Your task to perform on an android device: allow notifications from all sites in the chrome app Image 0: 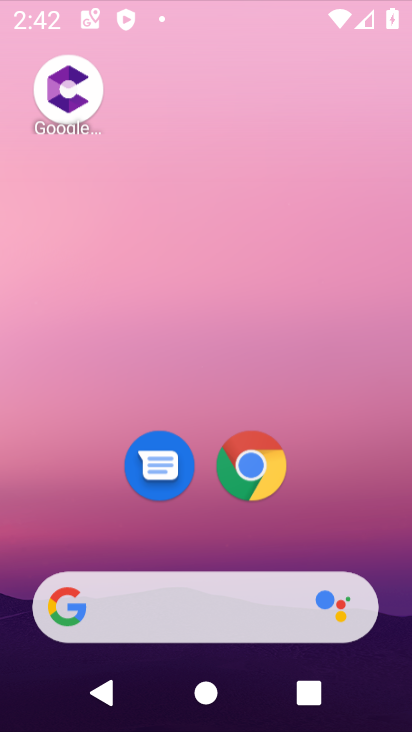
Step 0: click (215, 135)
Your task to perform on an android device: allow notifications from all sites in the chrome app Image 1: 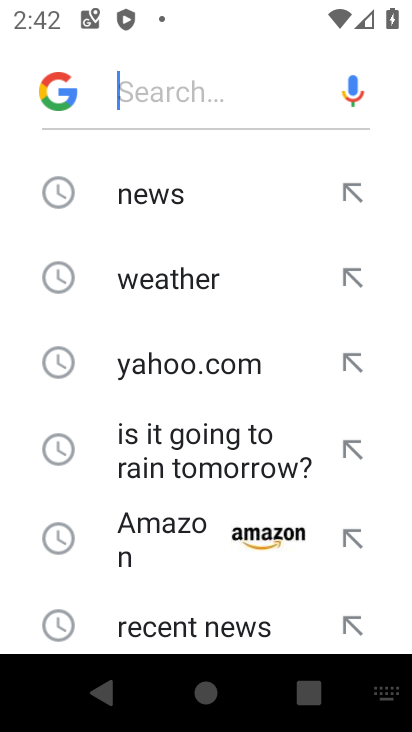
Step 1: press back button
Your task to perform on an android device: allow notifications from all sites in the chrome app Image 2: 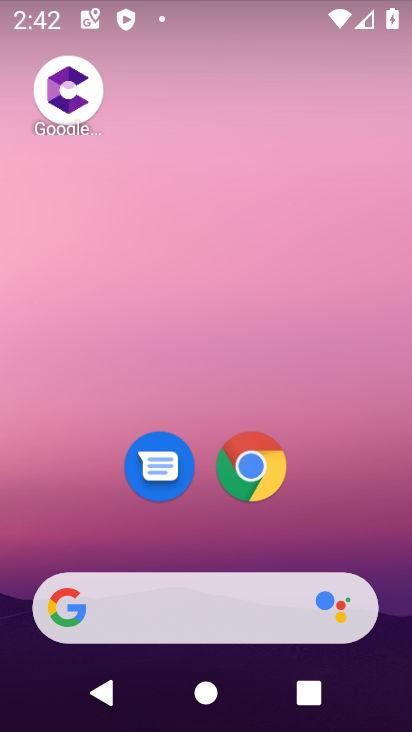
Step 2: drag from (265, 628) to (178, 39)
Your task to perform on an android device: allow notifications from all sites in the chrome app Image 3: 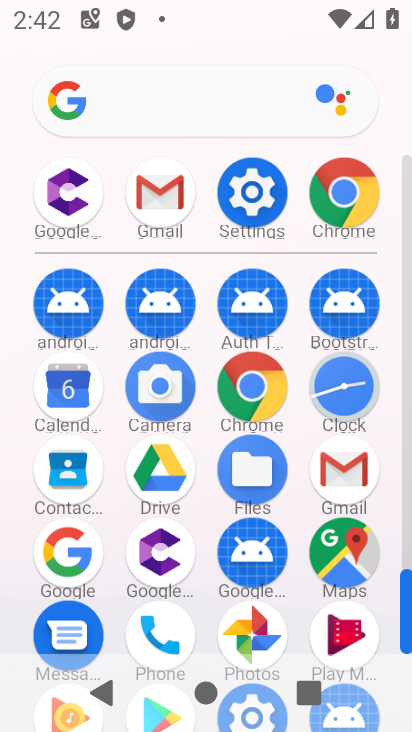
Step 3: click (329, 216)
Your task to perform on an android device: allow notifications from all sites in the chrome app Image 4: 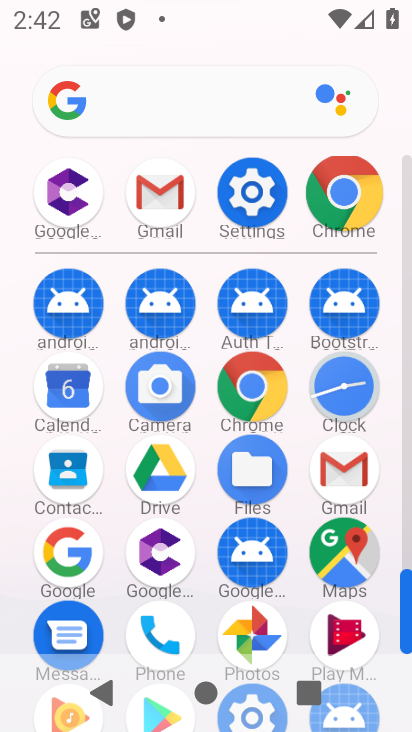
Step 4: click (329, 216)
Your task to perform on an android device: allow notifications from all sites in the chrome app Image 5: 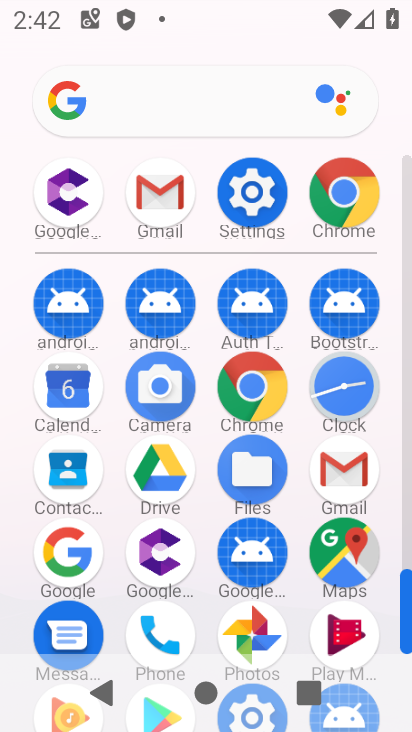
Step 5: click (335, 208)
Your task to perform on an android device: allow notifications from all sites in the chrome app Image 6: 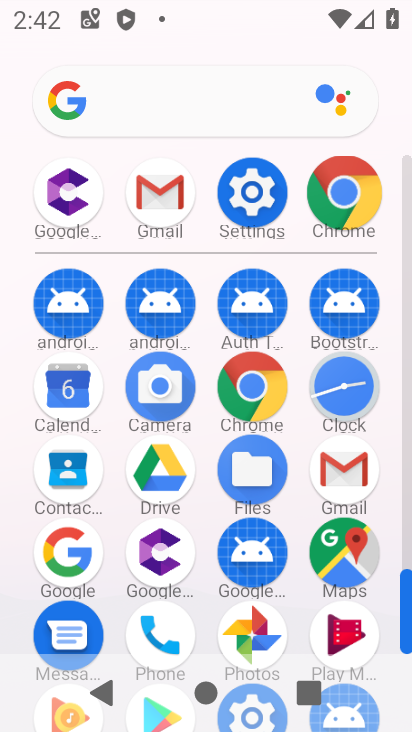
Step 6: click (337, 207)
Your task to perform on an android device: allow notifications from all sites in the chrome app Image 7: 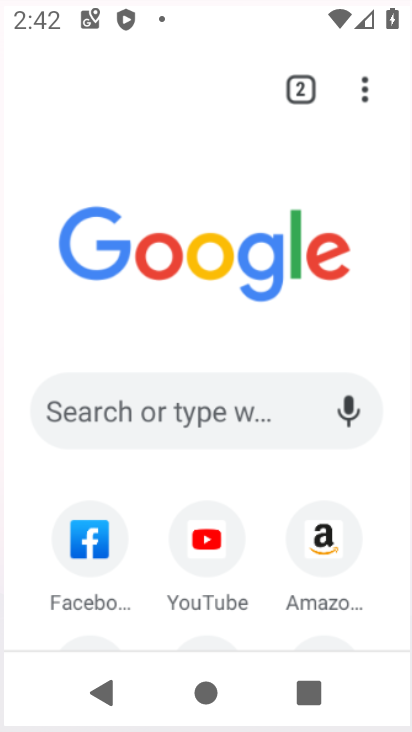
Step 7: click (343, 205)
Your task to perform on an android device: allow notifications from all sites in the chrome app Image 8: 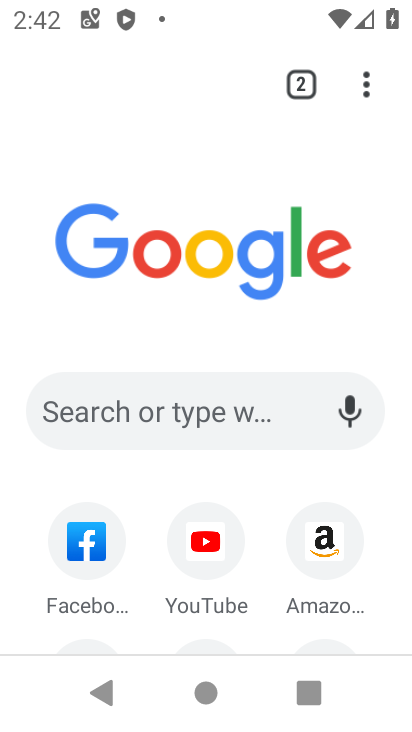
Step 8: drag from (370, 82) to (36, 514)
Your task to perform on an android device: allow notifications from all sites in the chrome app Image 9: 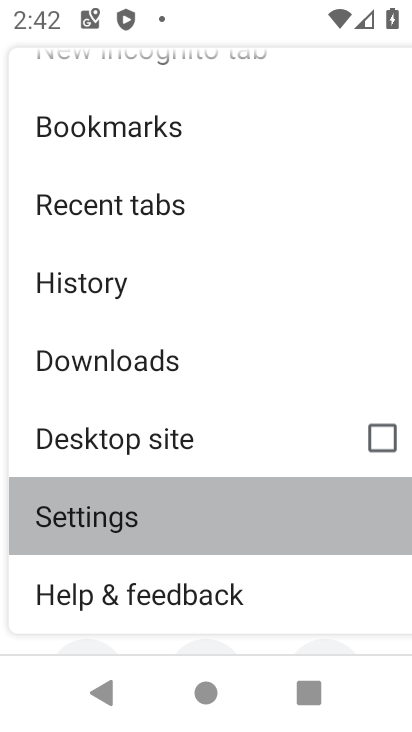
Step 9: click (47, 507)
Your task to perform on an android device: allow notifications from all sites in the chrome app Image 10: 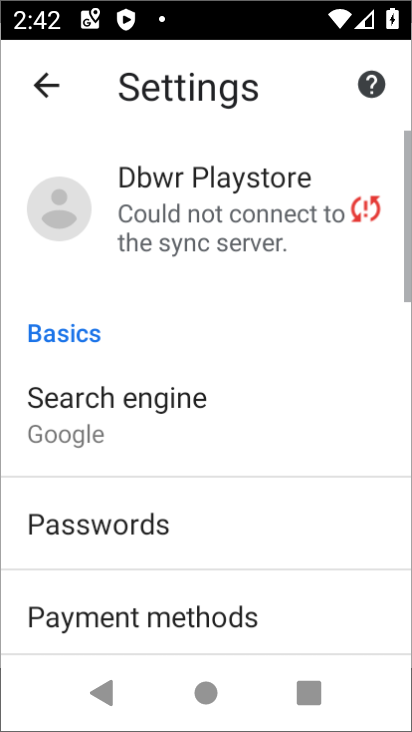
Step 10: click (56, 507)
Your task to perform on an android device: allow notifications from all sites in the chrome app Image 11: 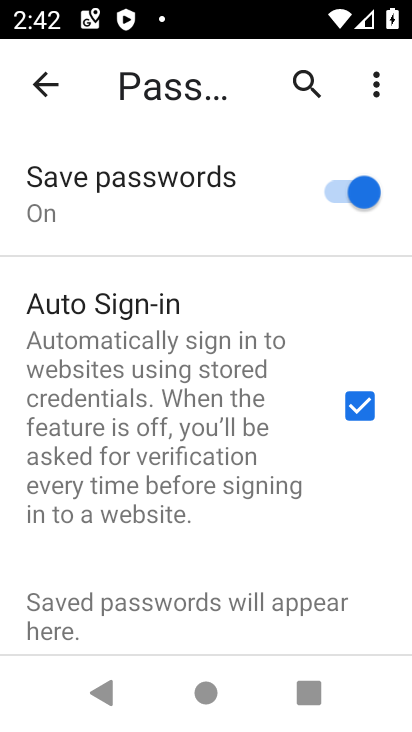
Step 11: click (34, 74)
Your task to perform on an android device: allow notifications from all sites in the chrome app Image 12: 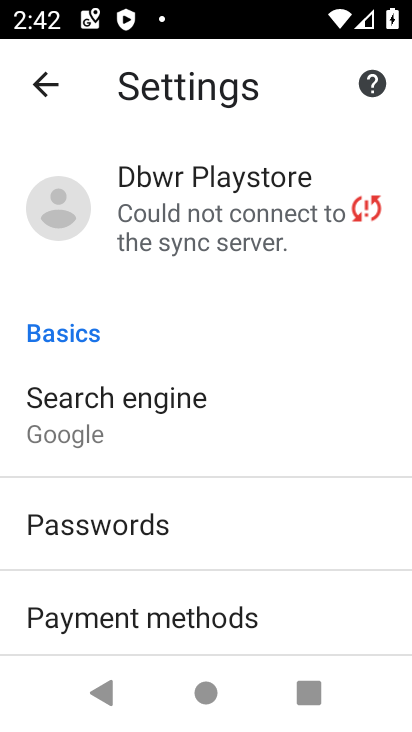
Step 12: drag from (140, 572) to (94, 311)
Your task to perform on an android device: allow notifications from all sites in the chrome app Image 13: 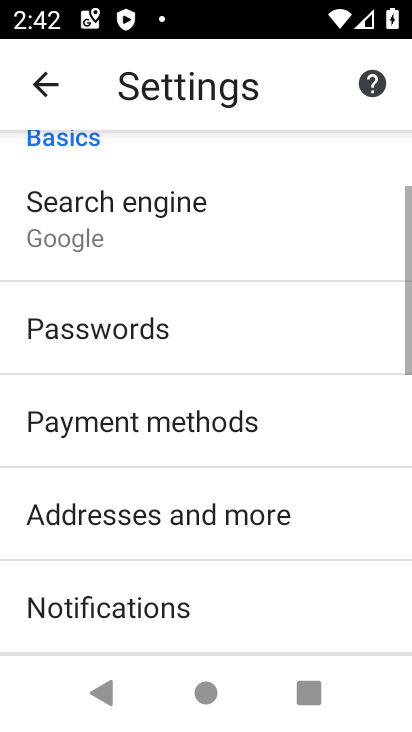
Step 13: drag from (142, 571) to (113, 291)
Your task to perform on an android device: allow notifications from all sites in the chrome app Image 14: 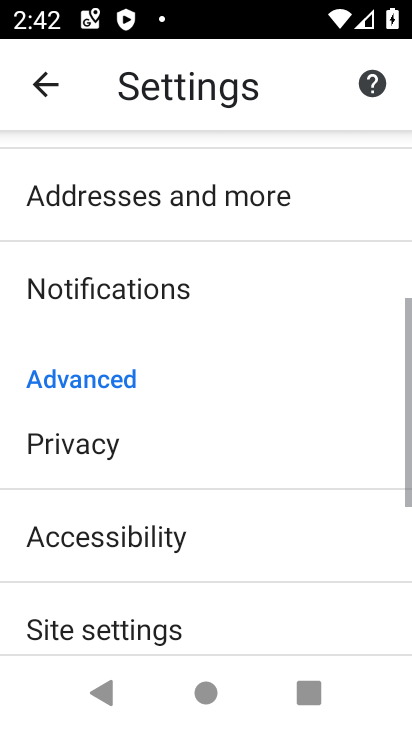
Step 14: drag from (148, 352) to (138, 295)
Your task to perform on an android device: allow notifications from all sites in the chrome app Image 15: 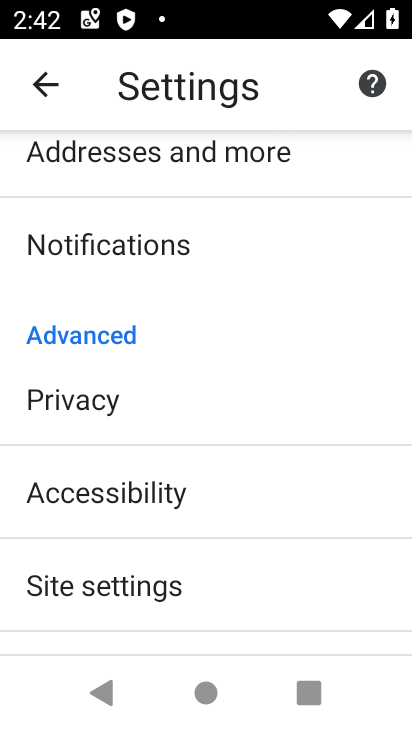
Step 15: click (83, 571)
Your task to perform on an android device: allow notifications from all sites in the chrome app Image 16: 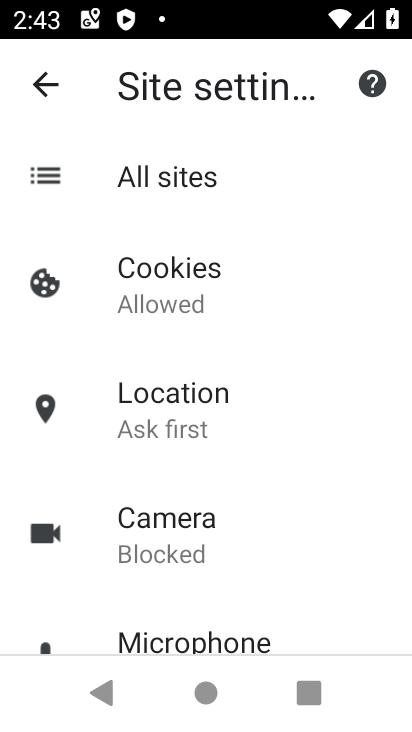
Step 16: click (150, 161)
Your task to perform on an android device: allow notifications from all sites in the chrome app Image 17: 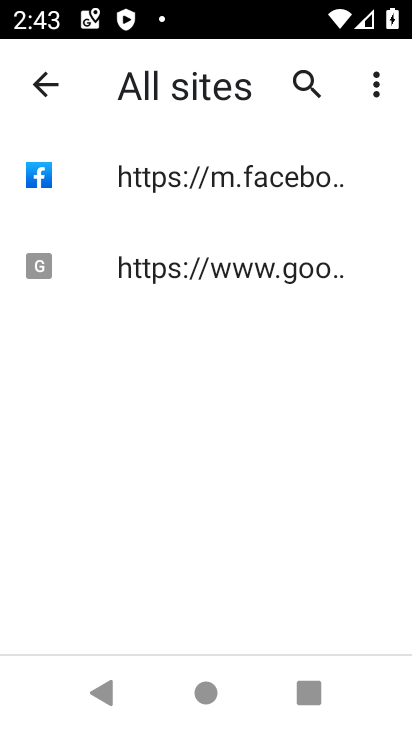
Step 17: click (295, 177)
Your task to perform on an android device: allow notifications from all sites in the chrome app Image 18: 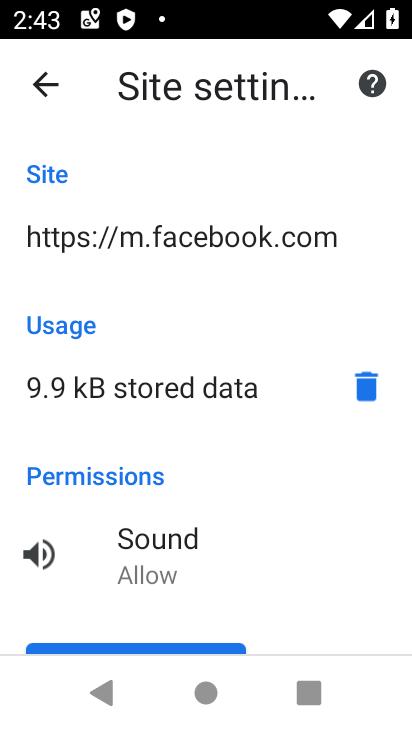
Step 18: task complete